Your task to perform on an android device: Open internet settings Image 0: 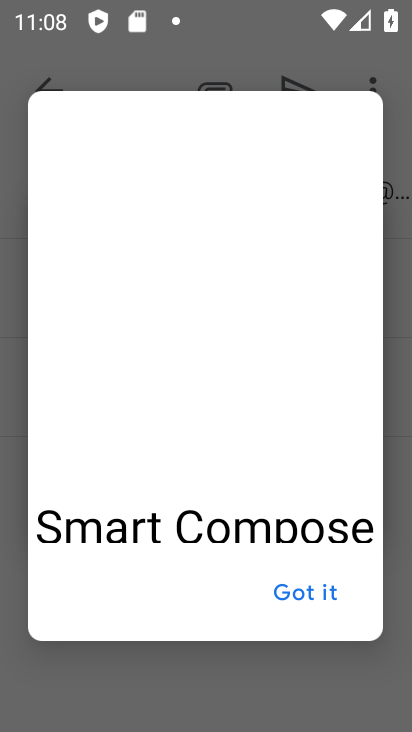
Step 0: press home button
Your task to perform on an android device: Open internet settings Image 1: 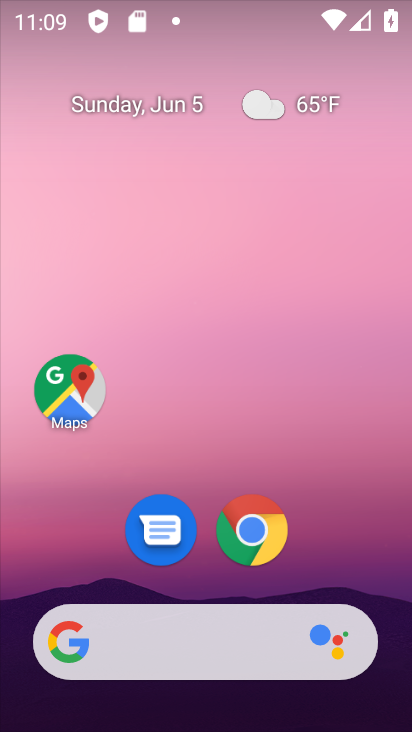
Step 1: drag from (354, 559) to (346, 7)
Your task to perform on an android device: Open internet settings Image 2: 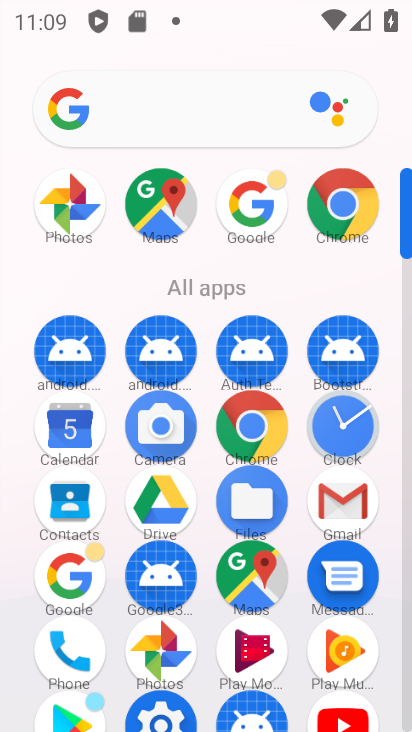
Step 2: drag from (396, 604) to (394, 112)
Your task to perform on an android device: Open internet settings Image 3: 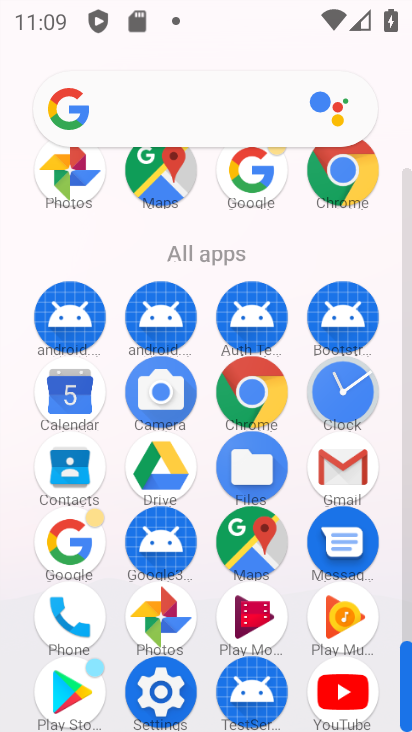
Step 3: click (161, 693)
Your task to perform on an android device: Open internet settings Image 4: 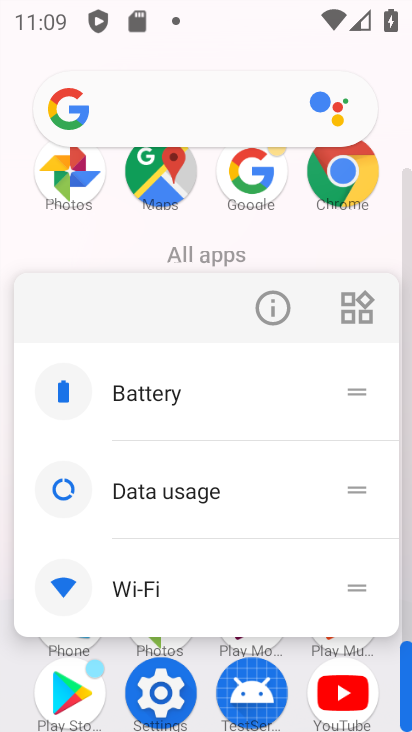
Step 4: click (173, 695)
Your task to perform on an android device: Open internet settings Image 5: 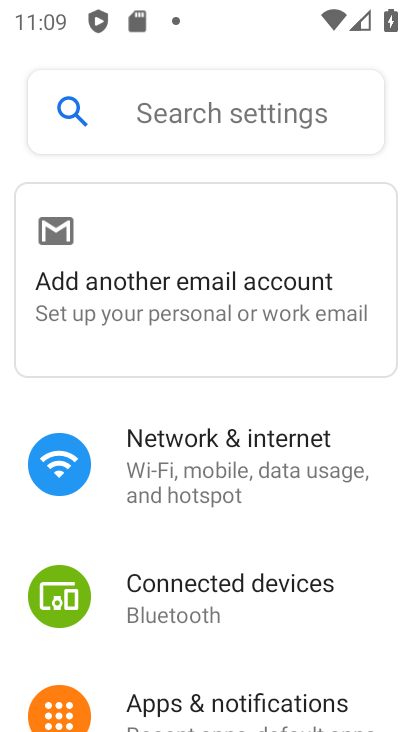
Step 5: click (214, 473)
Your task to perform on an android device: Open internet settings Image 6: 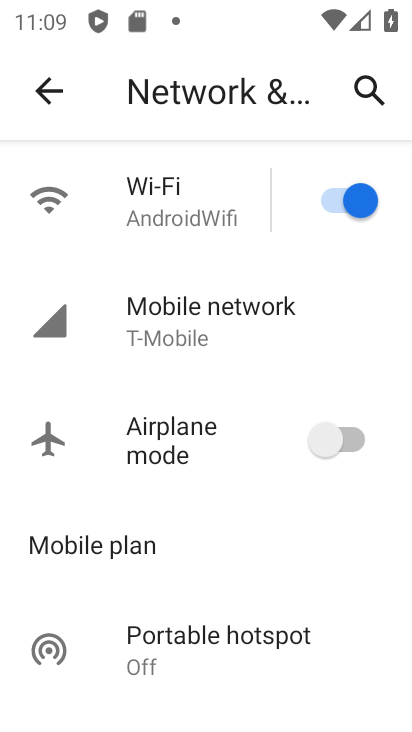
Step 6: task complete